Your task to perform on an android device: turn on improve location accuracy Image 0: 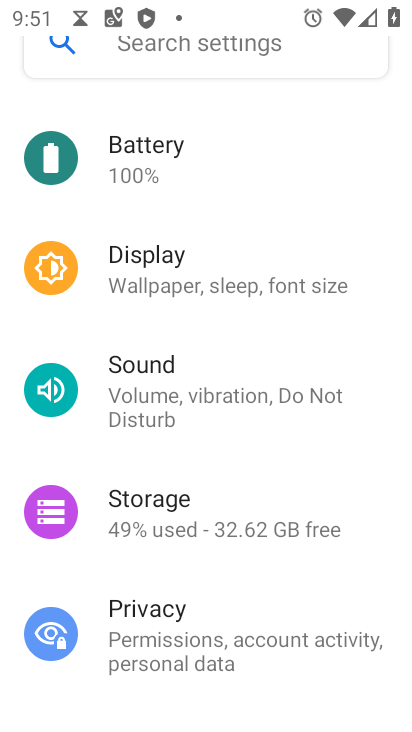
Step 0: press back button
Your task to perform on an android device: turn on improve location accuracy Image 1: 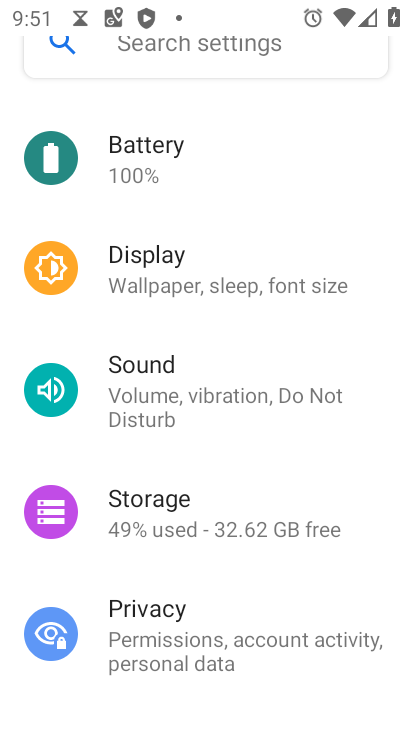
Step 1: press back button
Your task to perform on an android device: turn on improve location accuracy Image 2: 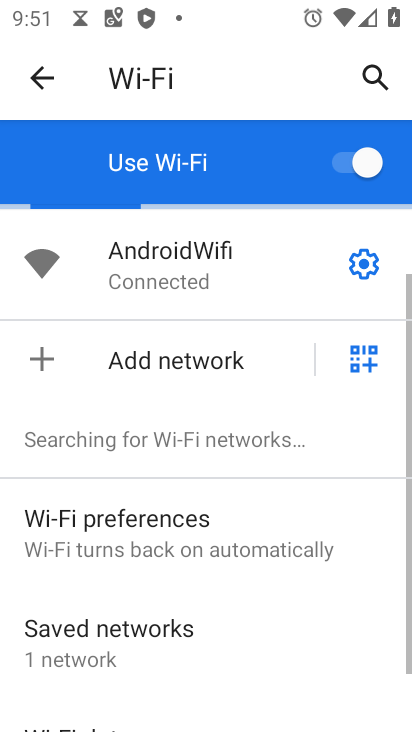
Step 2: press back button
Your task to perform on an android device: turn on improve location accuracy Image 3: 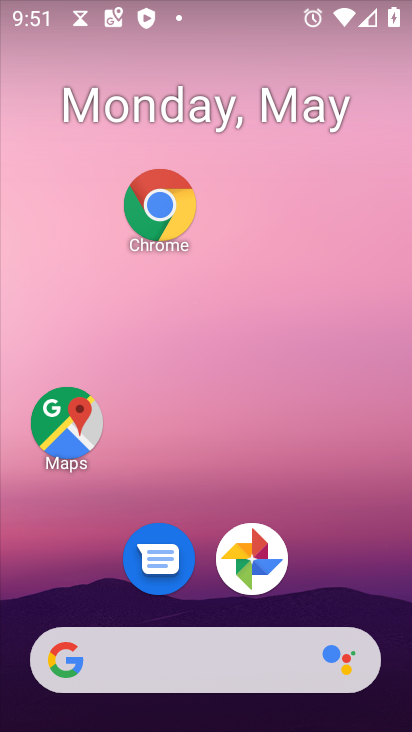
Step 3: drag from (222, 667) to (122, 57)
Your task to perform on an android device: turn on improve location accuracy Image 4: 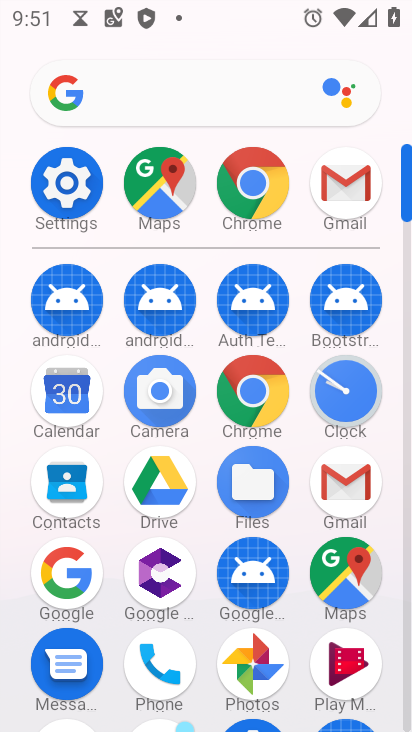
Step 4: click (59, 184)
Your task to perform on an android device: turn on improve location accuracy Image 5: 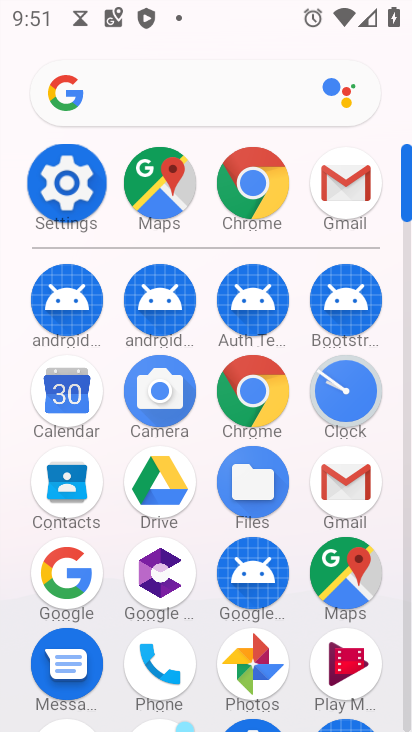
Step 5: click (59, 184)
Your task to perform on an android device: turn on improve location accuracy Image 6: 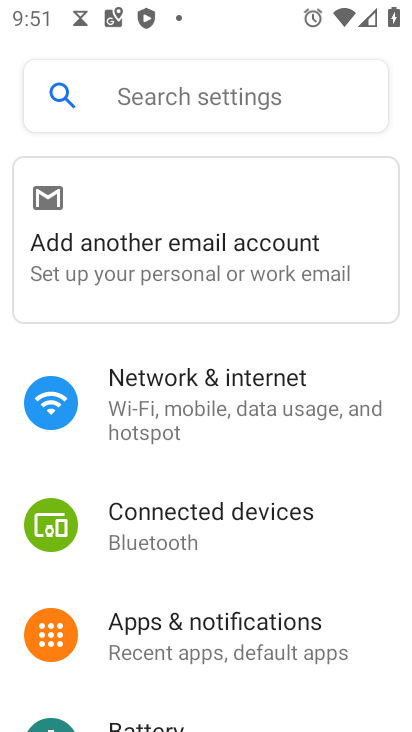
Step 6: drag from (220, 620) to (234, 277)
Your task to perform on an android device: turn on improve location accuracy Image 7: 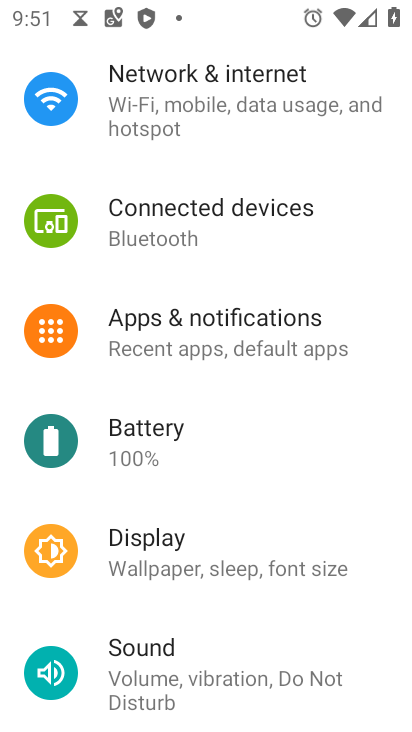
Step 7: drag from (244, 489) to (244, 295)
Your task to perform on an android device: turn on improve location accuracy Image 8: 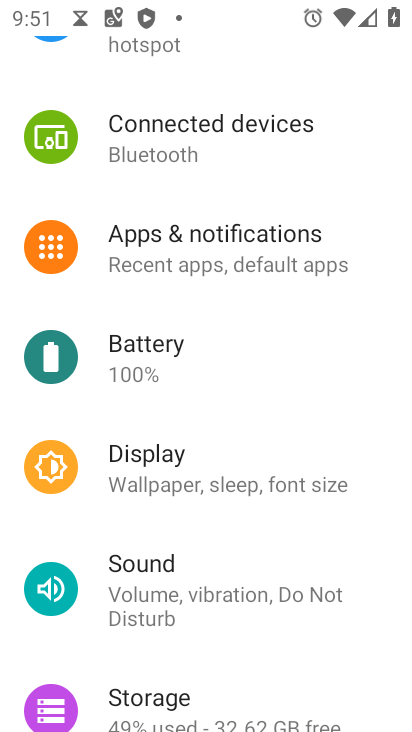
Step 8: drag from (193, 593) to (193, 228)
Your task to perform on an android device: turn on improve location accuracy Image 9: 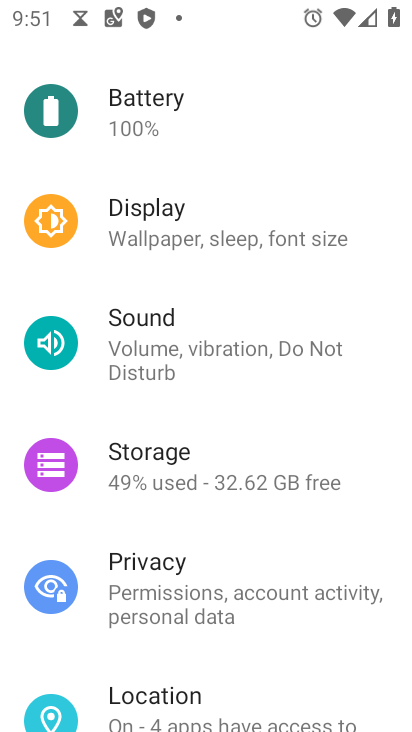
Step 9: drag from (224, 448) to (236, 117)
Your task to perform on an android device: turn on improve location accuracy Image 10: 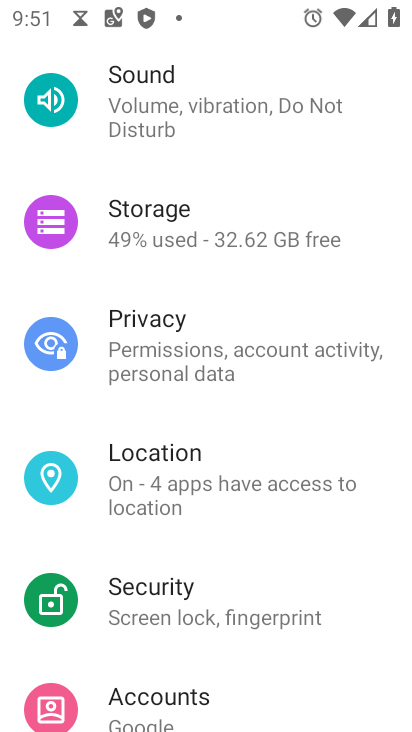
Step 10: click (158, 469)
Your task to perform on an android device: turn on improve location accuracy Image 11: 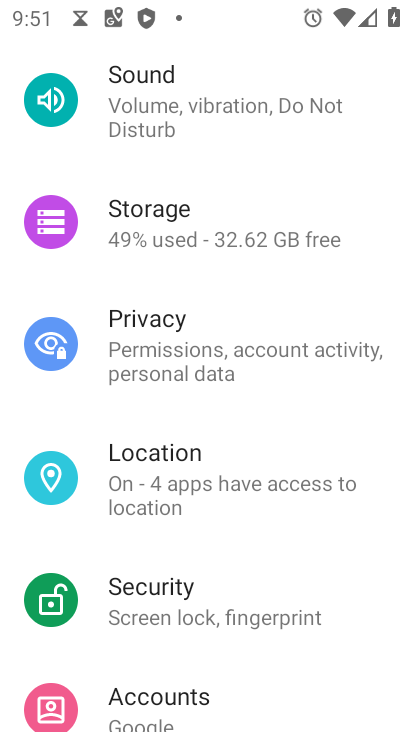
Step 11: click (158, 469)
Your task to perform on an android device: turn on improve location accuracy Image 12: 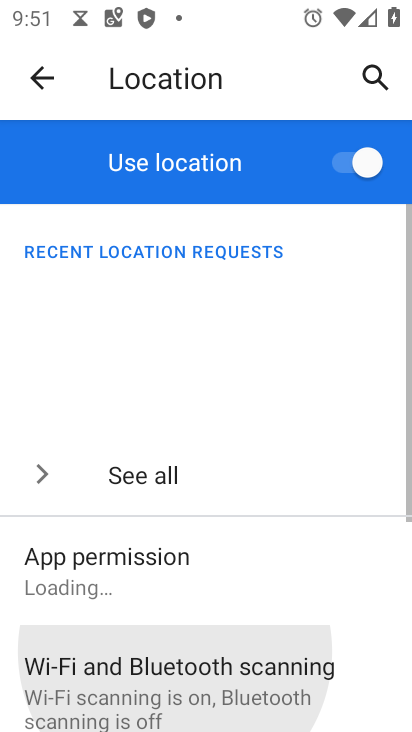
Step 12: click (158, 469)
Your task to perform on an android device: turn on improve location accuracy Image 13: 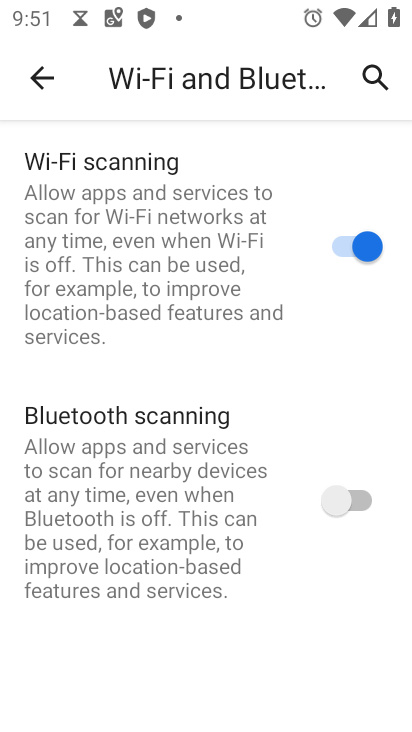
Step 13: click (36, 78)
Your task to perform on an android device: turn on improve location accuracy Image 14: 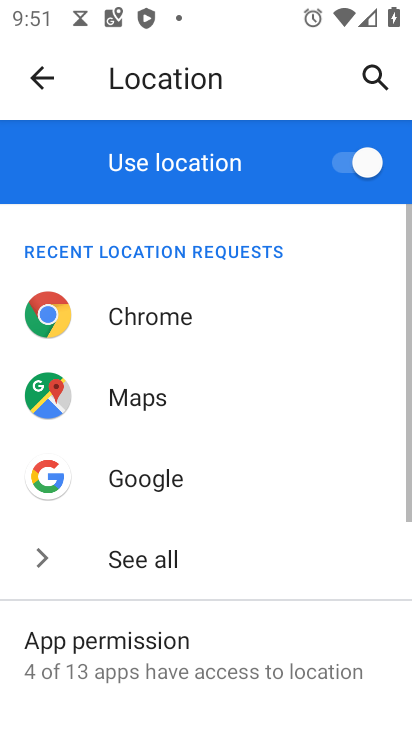
Step 14: drag from (173, 438) to (165, 99)
Your task to perform on an android device: turn on improve location accuracy Image 15: 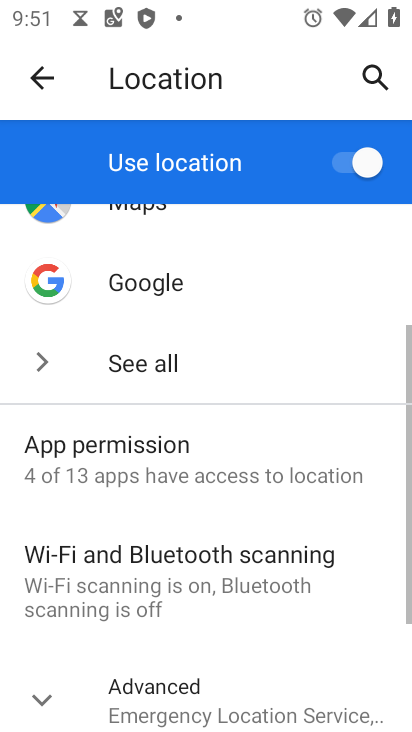
Step 15: drag from (244, 400) to (226, 51)
Your task to perform on an android device: turn on improve location accuracy Image 16: 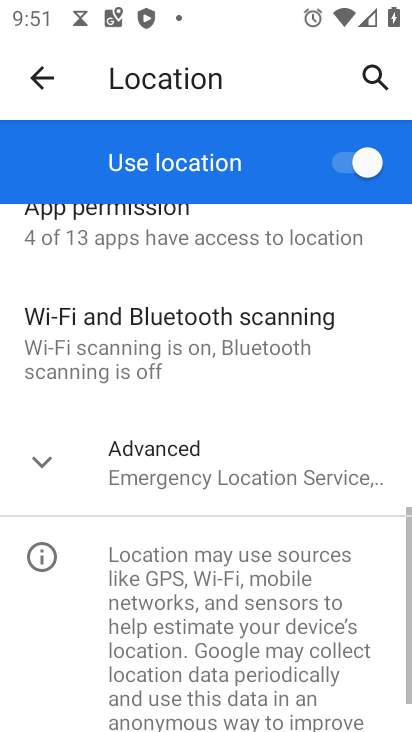
Step 16: drag from (233, 348) to (219, 145)
Your task to perform on an android device: turn on improve location accuracy Image 17: 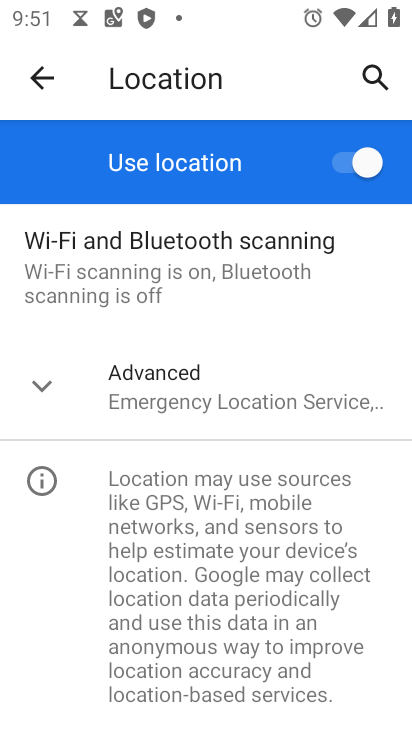
Step 17: click (164, 387)
Your task to perform on an android device: turn on improve location accuracy Image 18: 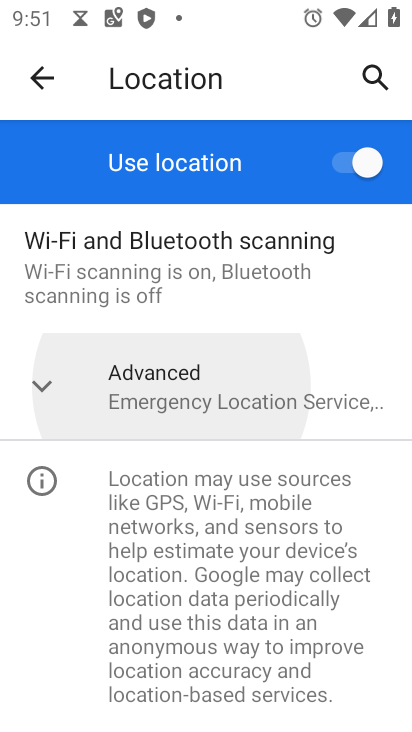
Step 18: click (164, 388)
Your task to perform on an android device: turn on improve location accuracy Image 19: 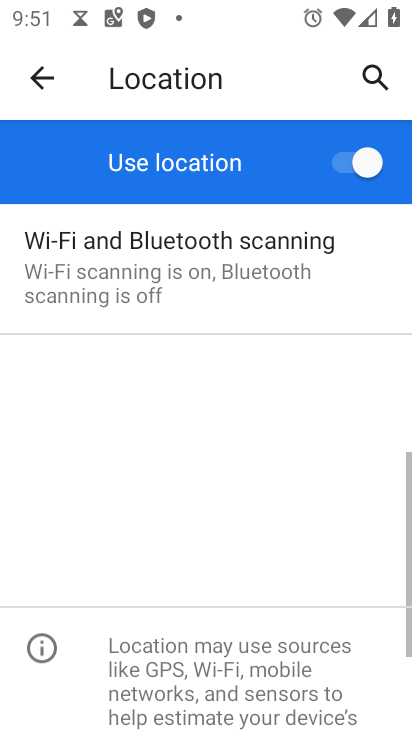
Step 19: click (164, 388)
Your task to perform on an android device: turn on improve location accuracy Image 20: 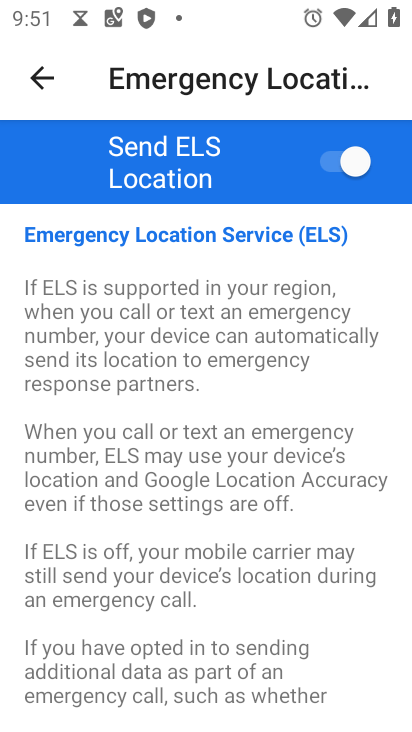
Step 20: click (41, 79)
Your task to perform on an android device: turn on improve location accuracy Image 21: 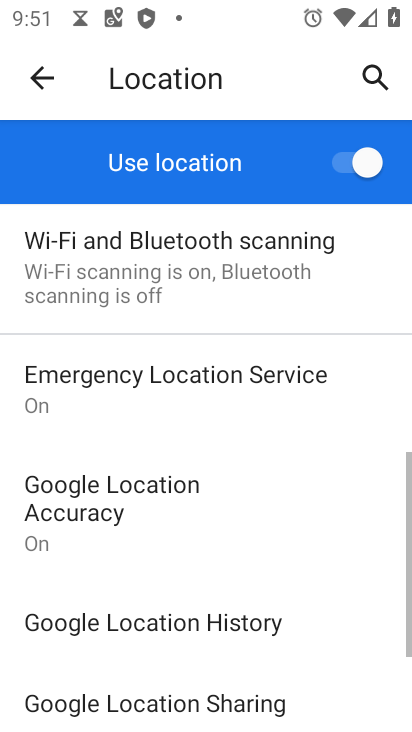
Step 21: drag from (219, 545) to (218, 167)
Your task to perform on an android device: turn on improve location accuracy Image 22: 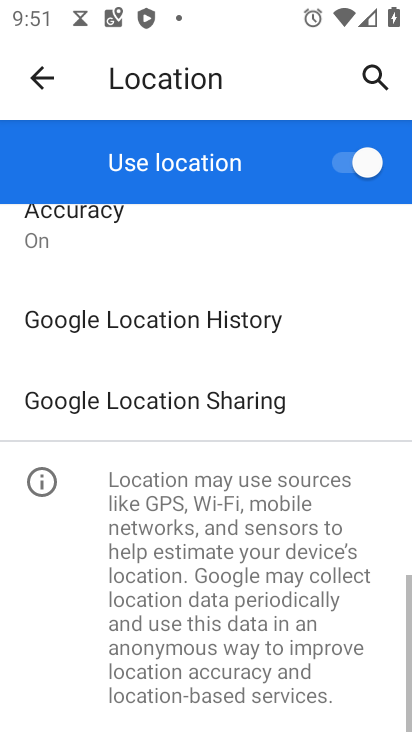
Step 22: drag from (209, 503) to (205, 236)
Your task to perform on an android device: turn on improve location accuracy Image 23: 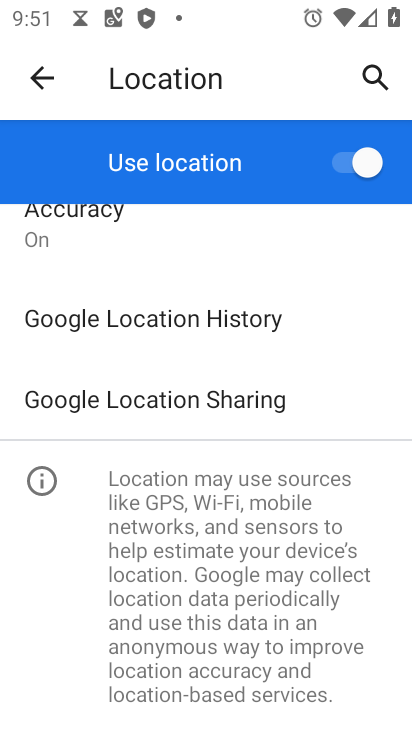
Step 23: drag from (144, 291) to (180, 538)
Your task to perform on an android device: turn on improve location accuracy Image 24: 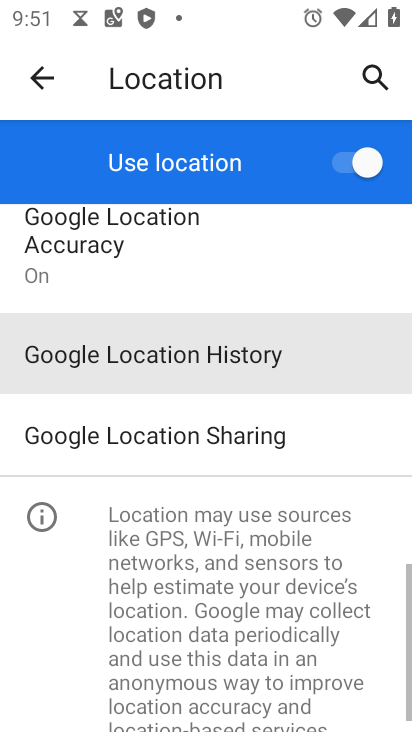
Step 24: drag from (140, 309) to (193, 528)
Your task to perform on an android device: turn on improve location accuracy Image 25: 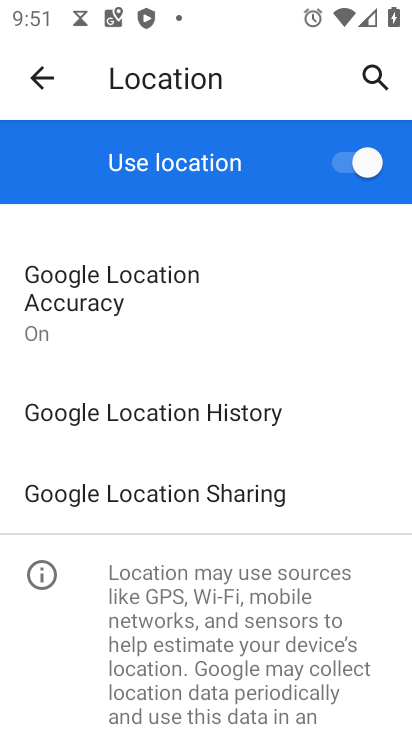
Step 25: click (109, 288)
Your task to perform on an android device: turn on improve location accuracy Image 26: 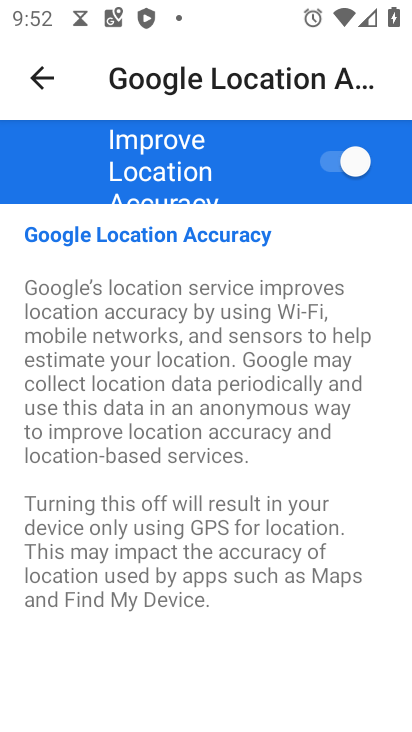
Step 26: task complete